Your task to perform on an android device: Show me productivity apps on the Play Store Image 0: 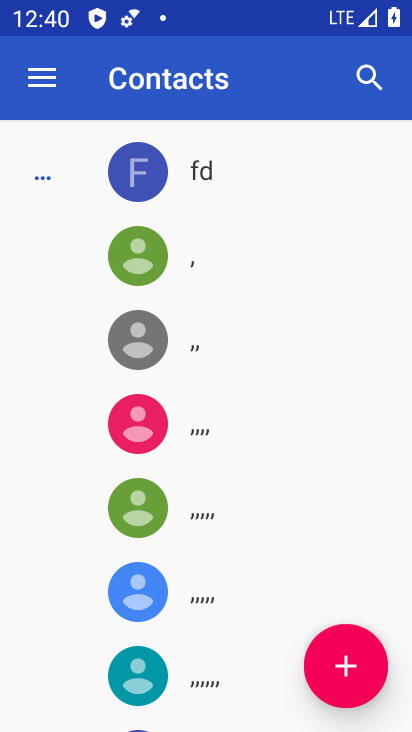
Step 0: press home button
Your task to perform on an android device: Show me productivity apps on the Play Store Image 1: 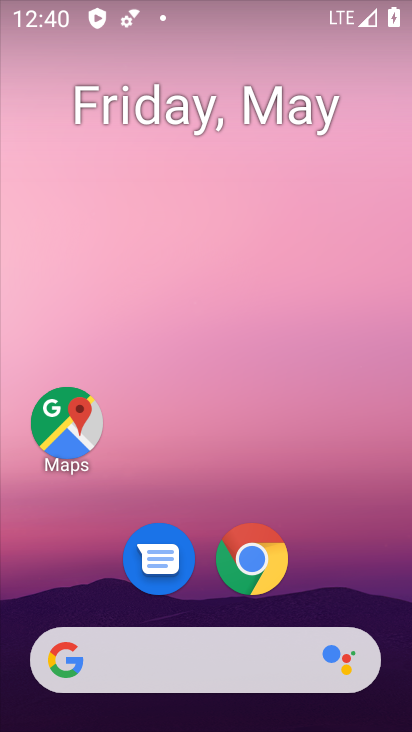
Step 1: drag from (356, 553) to (353, 111)
Your task to perform on an android device: Show me productivity apps on the Play Store Image 2: 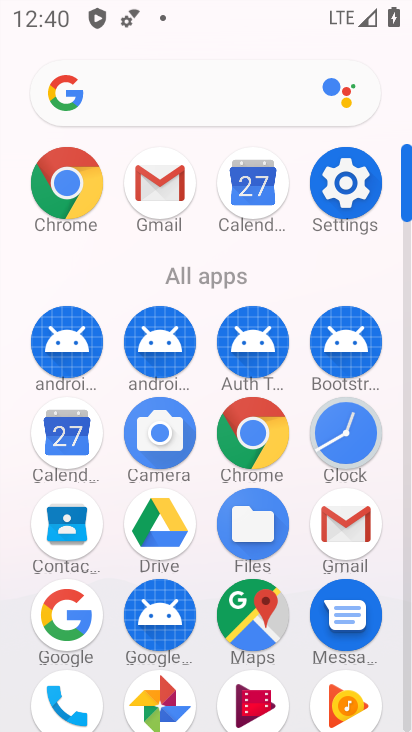
Step 2: drag from (307, 593) to (377, 199)
Your task to perform on an android device: Show me productivity apps on the Play Store Image 3: 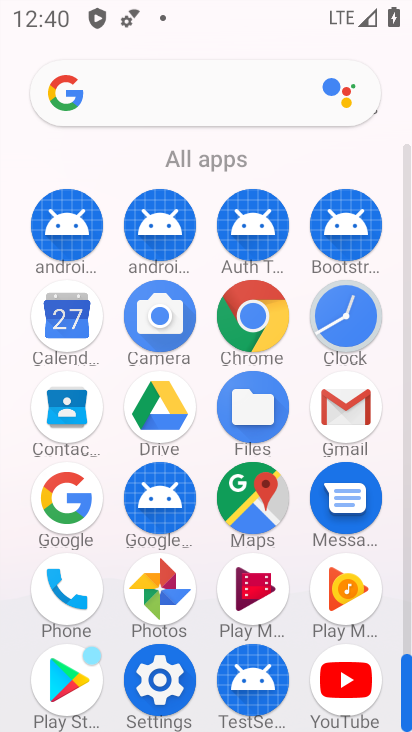
Step 3: click (68, 681)
Your task to perform on an android device: Show me productivity apps on the Play Store Image 4: 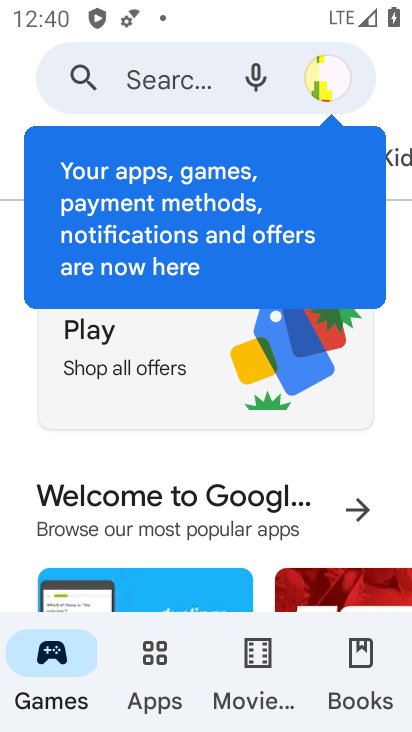
Step 4: click (151, 645)
Your task to perform on an android device: Show me productivity apps on the Play Store Image 5: 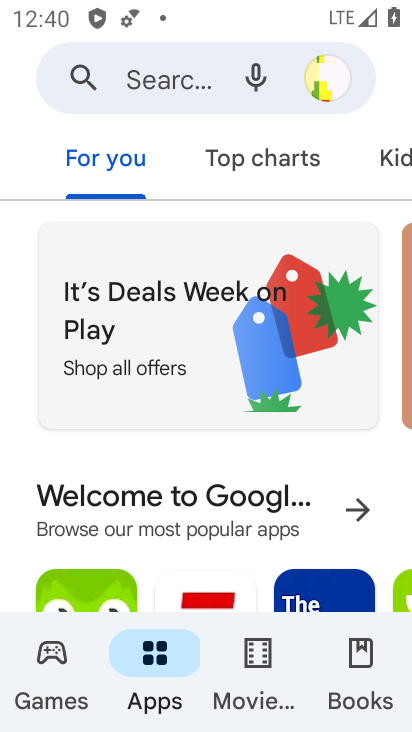
Step 5: drag from (263, 494) to (355, 72)
Your task to perform on an android device: Show me productivity apps on the Play Store Image 6: 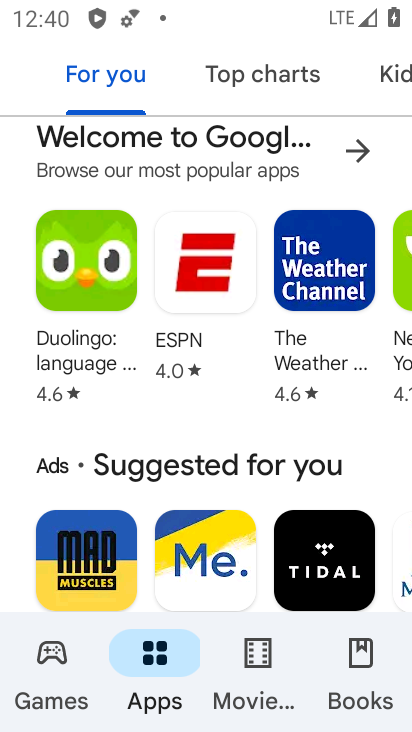
Step 6: drag from (276, 579) to (389, 136)
Your task to perform on an android device: Show me productivity apps on the Play Store Image 7: 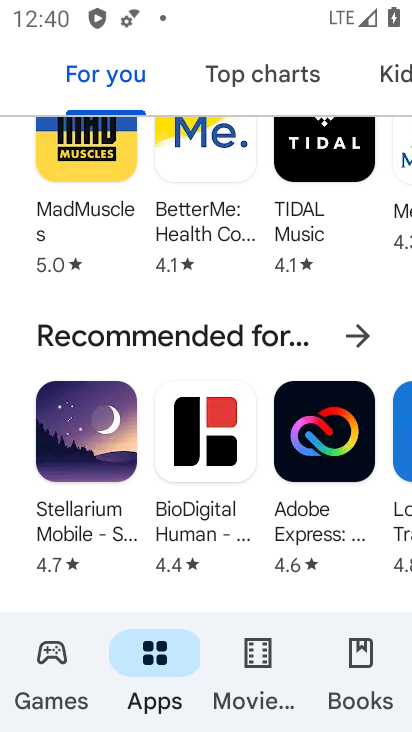
Step 7: drag from (249, 553) to (409, 116)
Your task to perform on an android device: Show me productivity apps on the Play Store Image 8: 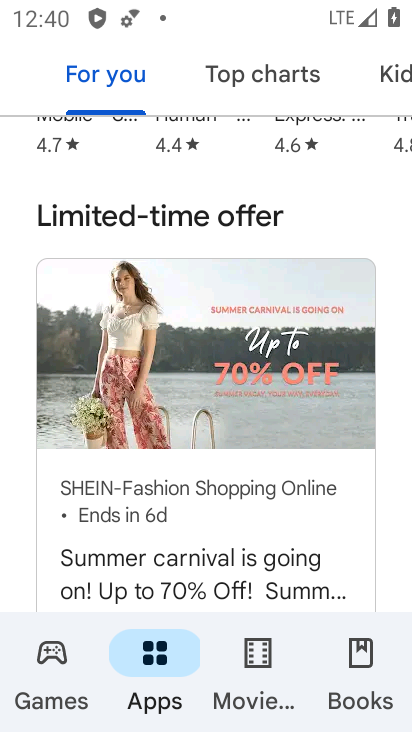
Step 8: drag from (231, 563) to (375, 107)
Your task to perform on an android device: Show me productivity apps on the Play Store Image 9: 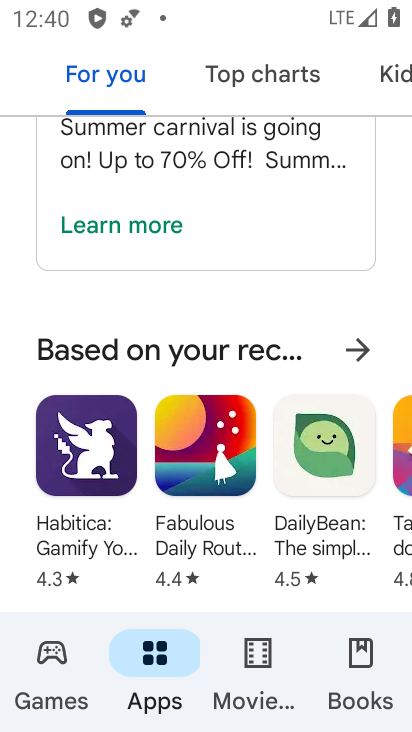
Step 9: drag from (259, 569) to (329, 105)
Your task to perform on an android device: Show me productivity apps on the Play Store Image 10: 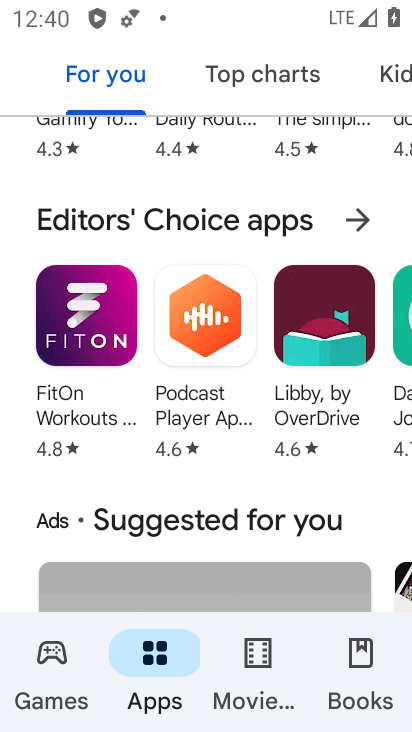
Step 10: drag from (226, 495) to (317, 115)
Your task to perform on an android device: Show me productivity apps on the Play Store Image 11: 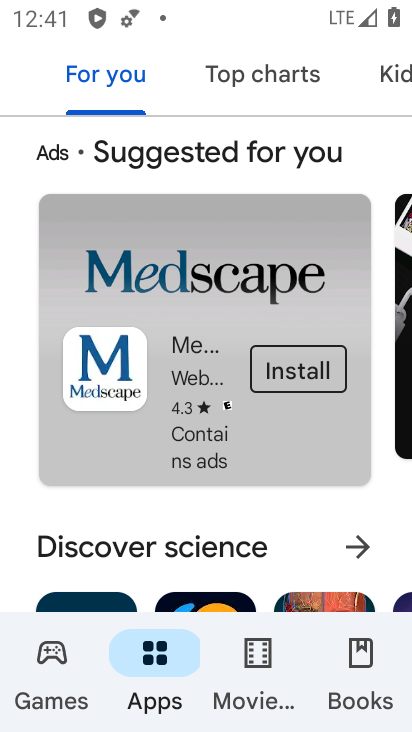
Step 11: drag from (216, 567) to (330, 108)
Your task to perform on an android device: Show me productivity apps on the Play Store Image 12: 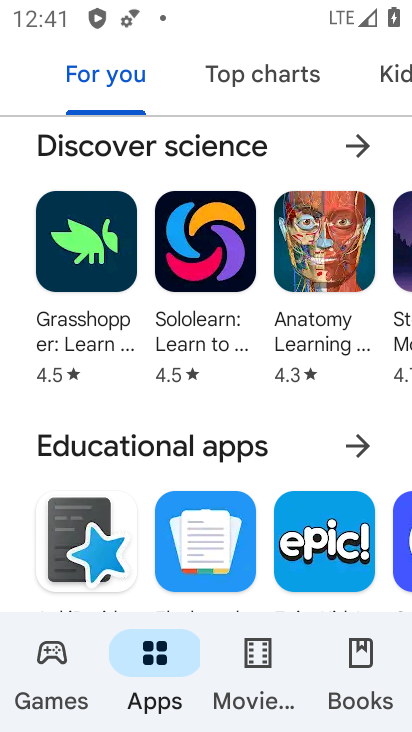
Step 12: drag from (259, 585) to (337, 128)
Your task to perform on an android device: Show me productivity apps on the Play Store Image 13: 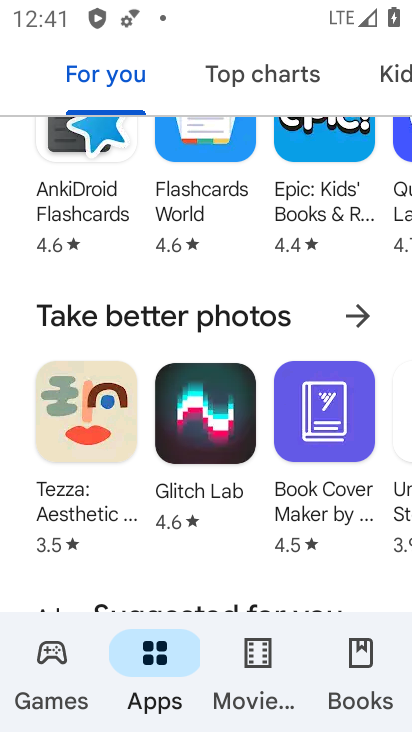
Step 13: drag from (175, 547) to (328, 176)
Your task to perform on an android device: Show me productivity apps on the Play Store Image 14: 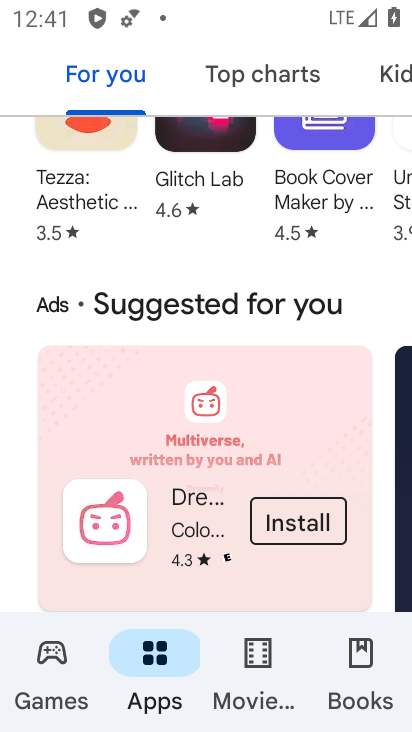
Step 14: drag from (250, 583) to (339, 199)
Your task to perform on an android device: Show me productivity apps on the Play Store Image 15: 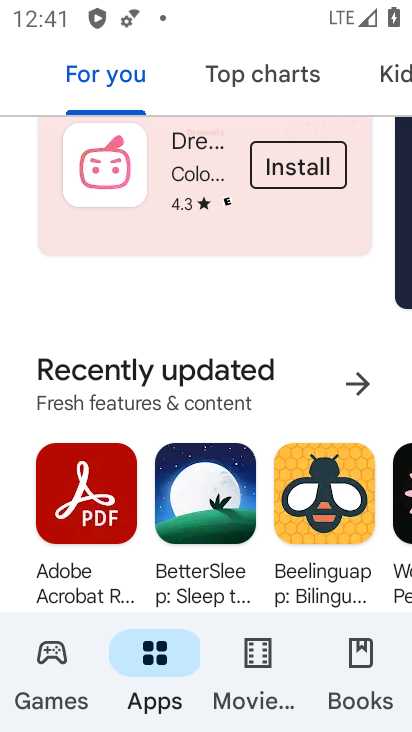
Step 15: drag from (258, 594) to (324, 220)
Your task to perform on an android device: Show me productivity apps on the Play Store Image 16: 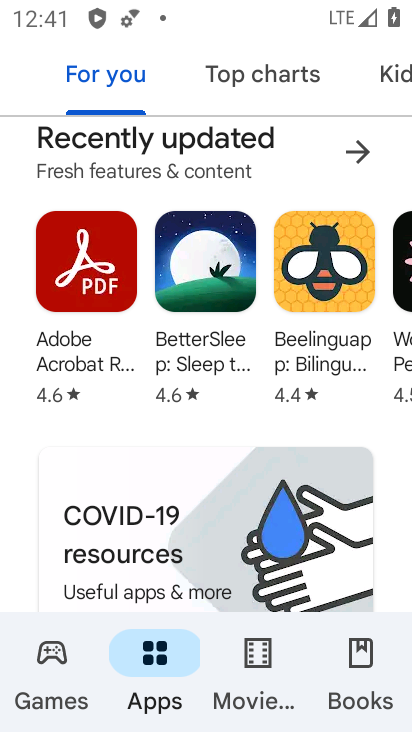
Step 16: drag from (207, 572) to (311, 234)
Your task to perform on an android device: Show me productivity apps on the Play Store Image 17: 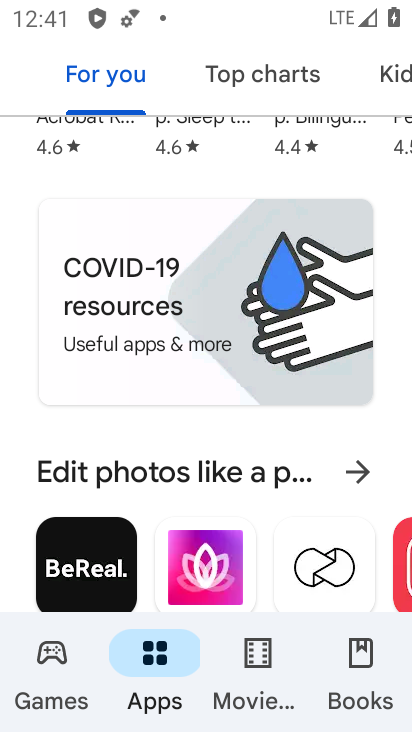
Step 17: drag from (280, 593) to (345, 83)
Your task to perform on an android device: Show me productivity apps on the Play Store Image 18: 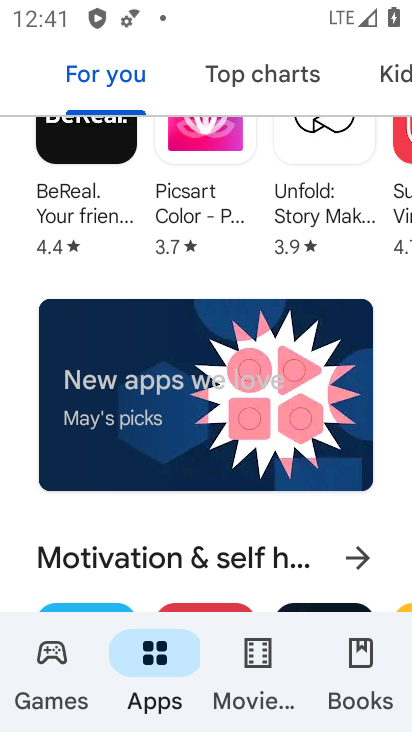
Step 18: drag from (145, 579) to (293, 142)
Your task to perform on an android device: Show me productivity apps on the Play Store Image 19: 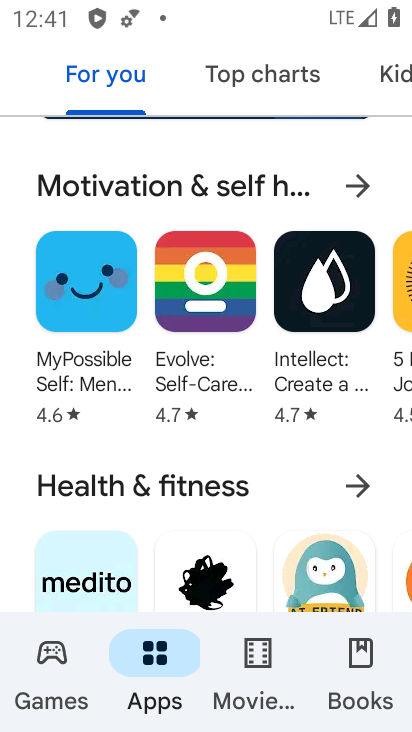
Step 19: drag from (197, 548) to (301, 168)
Your task to perform on an android device: Show me productivity apps on the Play Store Image 20: 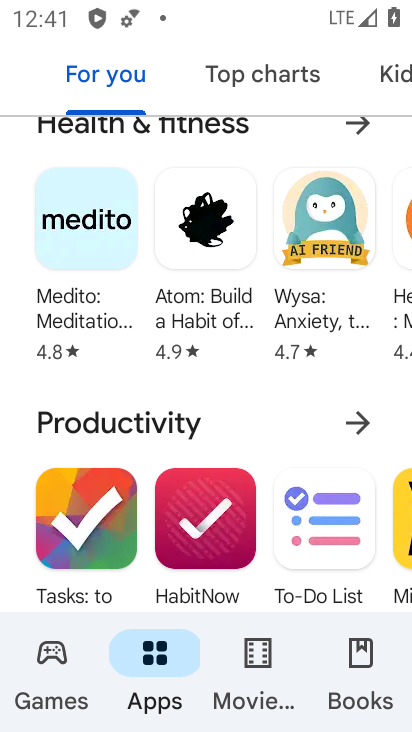
Step 20: drag from (403, 260) to (379, 165)
Your task to perform on an android device: Show me productivity apps on the Play Store Image 21: 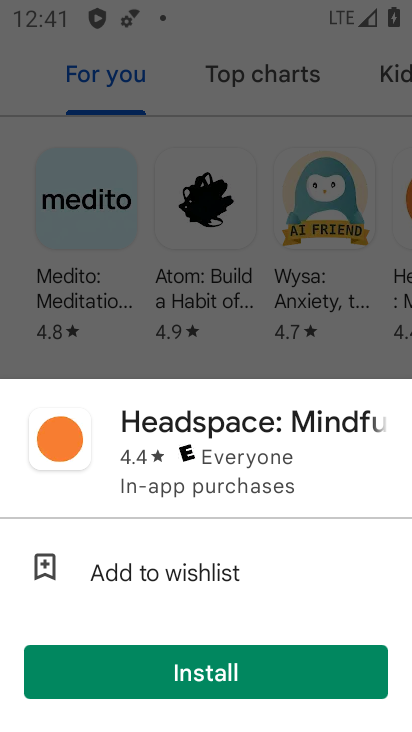
Step 21: click (256, 326)
Your task to perform on an android device: Show me productivity apps on the Play Store Image 22: 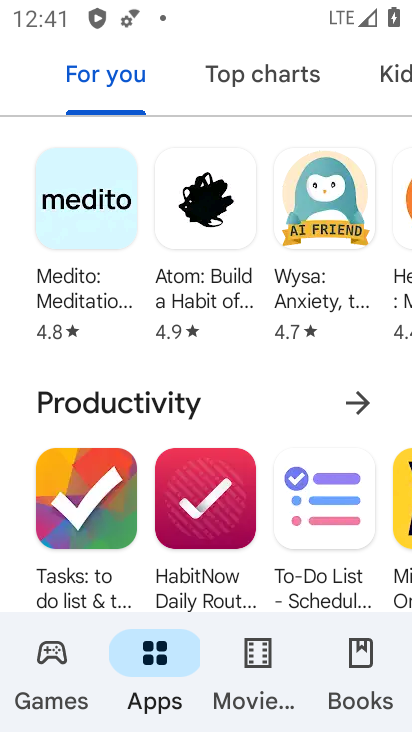
Step 22: task complete